Your task to perform on an android device: Clear the cart on amazon. Search for amazon basics triple a on amazon, select the first entry, and add it to the cart. Image 0: 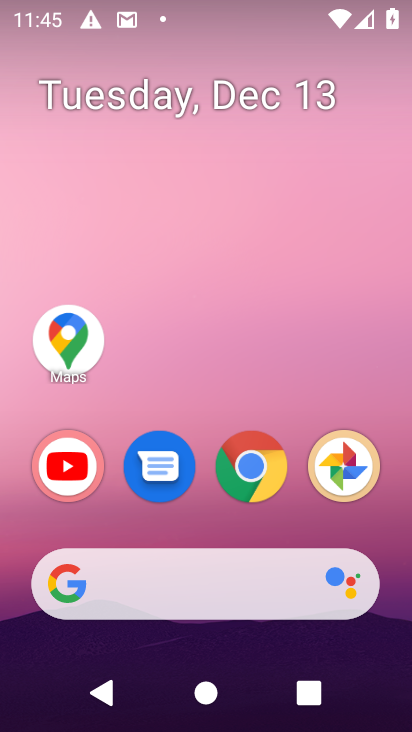
Step 0: click (190, 589)
Your task to perform on an android device: Clear the cart on amazon. Search for amazon basics triple a on amazon, select the first entry, and add it to the cart. Image 1: 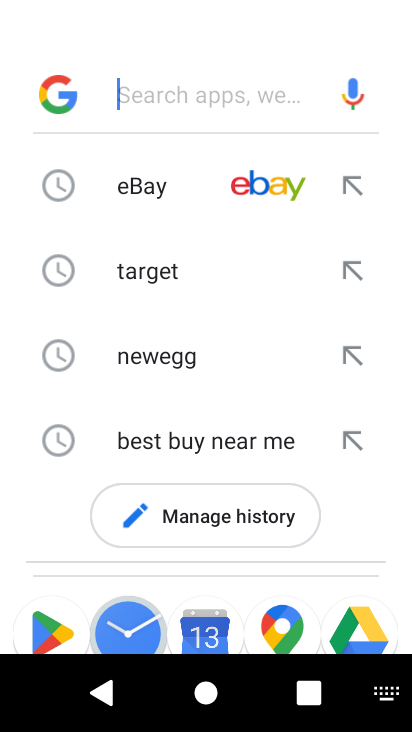
Step 1: type "amazon"
Your task to perform on an android device: Clear the cart on amazon. Search for amazon basics triple a on amazon, select the first entry, and add it to the cart. Image 2: 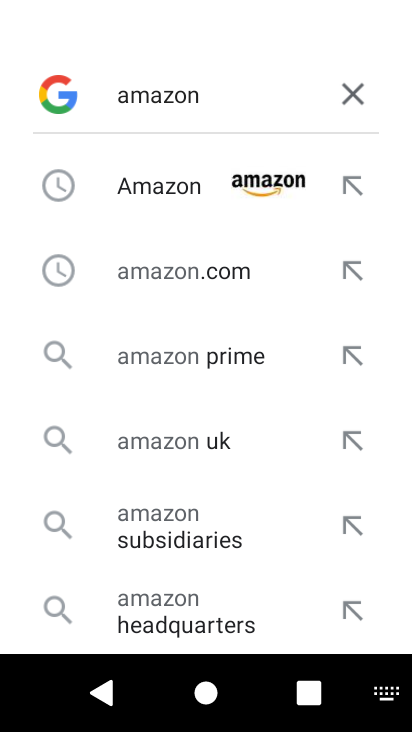
Step 2: click (181, 191)
Your task to perform on an android device: Clear the cart on amazon. Search for amazon basics triple a on amazon, select the first entry, and add it to the cart. Image 3: 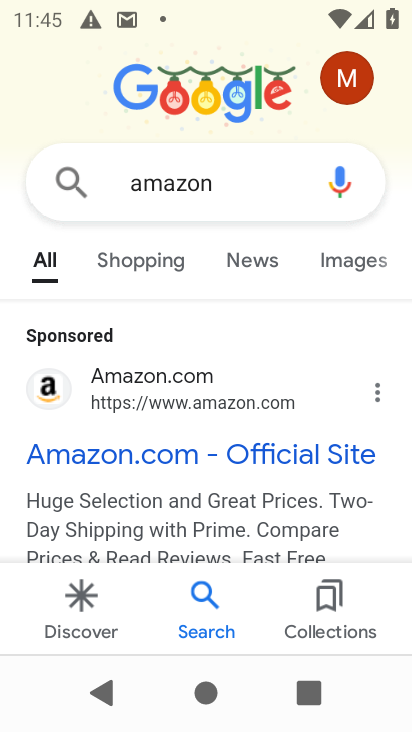
Step 3: click (162, 447)
Your task to perform on an android device: Clear the cart on amazon. Search for amazon basics triple a on amazon, select the first entry, and add it to the cart. Image 4: 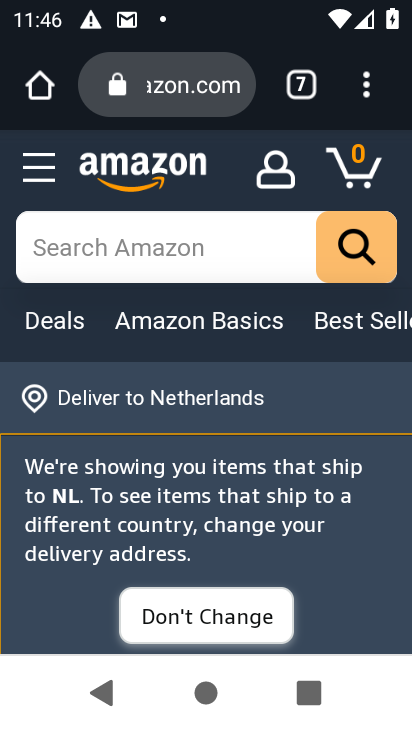
Step 4: click (182, 257)
Your task to perform on an android device: Clear the cart on amazon. Search for amazon basics triple a on amazon, select the first entry, and add it to the cart. Image 5: 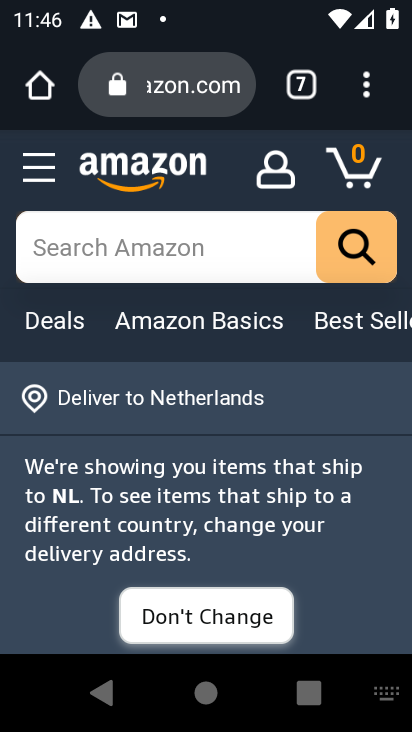
Step 5: type "basics triple a"
Your task to perform on an android device: Clear the cart on amazon. Search for amazon basics triple a on amazon, select the first entry, and add it to the cart. Image 6: 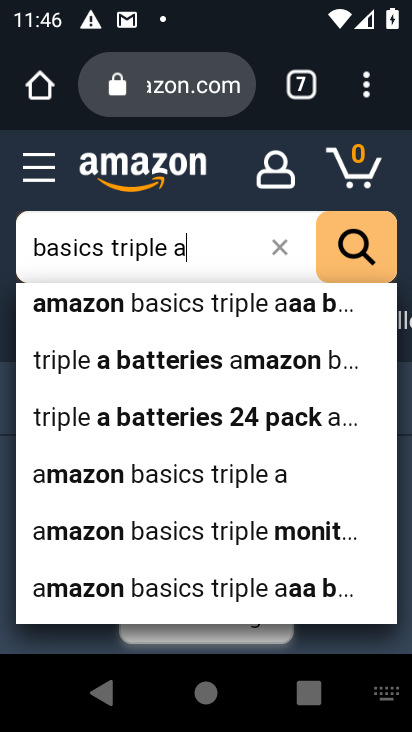
Step 6: click (349, 253)
Your task to perform on an android device: Clear the cart on amazon. Search for amazon basics triple a on amazon, select the first entry, and add it to the cart. Image 7: 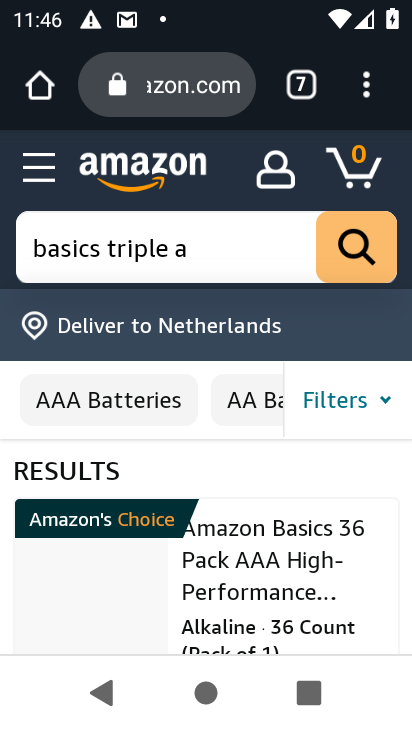
Step 7: click (220, 574)
Your task to perform on an android device: Clear the cart on amazon. Search for amazon basics triple a on amazon, select the first entry, and add it to the cart. Image 8: 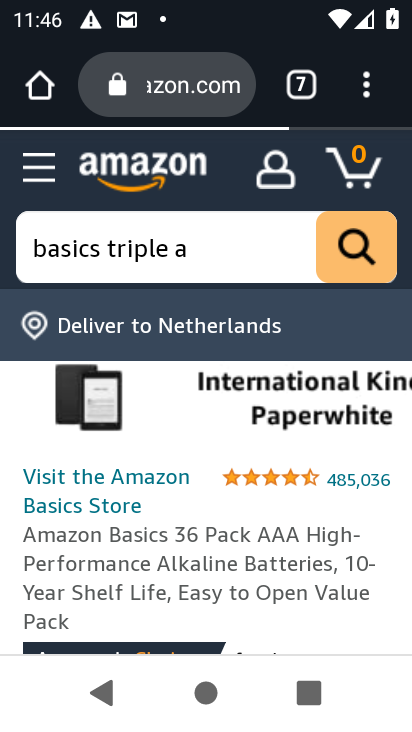
Step 8: drag from (286, 565) to (271, 355)
Your task to perform on an android device: Clear the cart on amazon. Search for amazon basics triple a on amazon, select the first entry, and add it to the cart. Image 9: 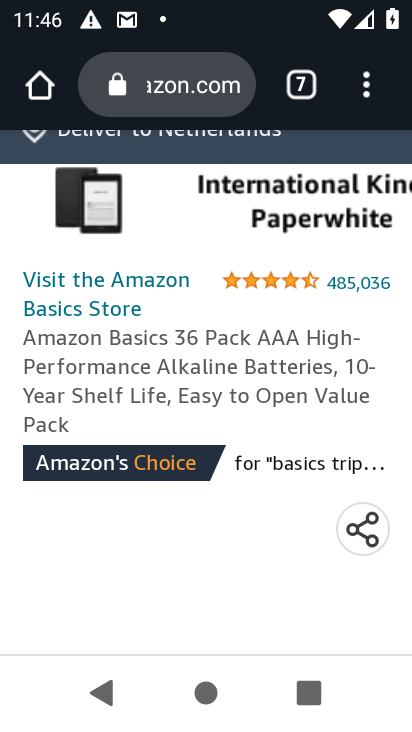
Step 9: drag from (218, 580) to (240, 362)
Your task to perform on an android device: Clear the cart on amazon. Search for amazon basics triple a on amazon, select the first entry, and add it to the cart. Image 10: 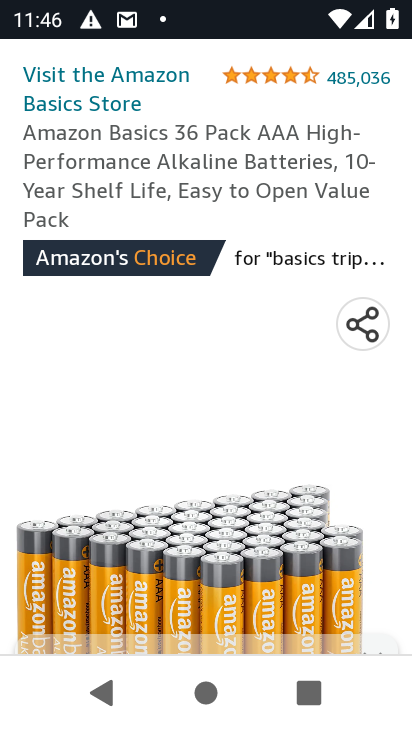
Step 10: drag from (224, 619) to (243, 435)
Your task to perform on an android device: Clear the cart on amazon. Search for amazon basics triple a on amazon, select the first entry, and add it to the cart. Image 11: 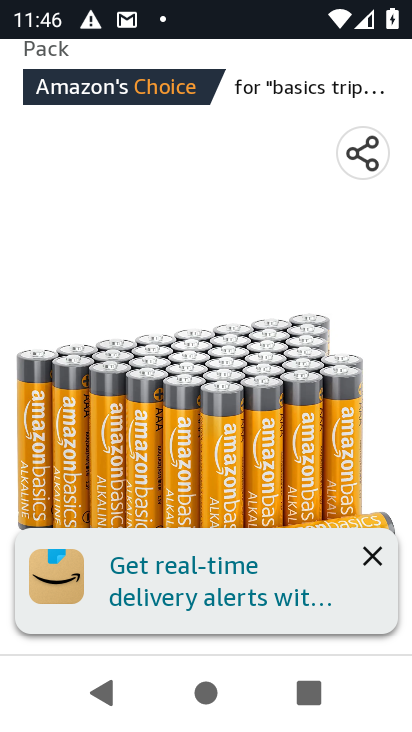
Step 11: drag from (256, 508) to (274, 383)
Your task to perform on an android device: Clear the cart on amazon. Search for amazon basics triple a on amazon, select the first entry, and add it to the cart. Image 12: 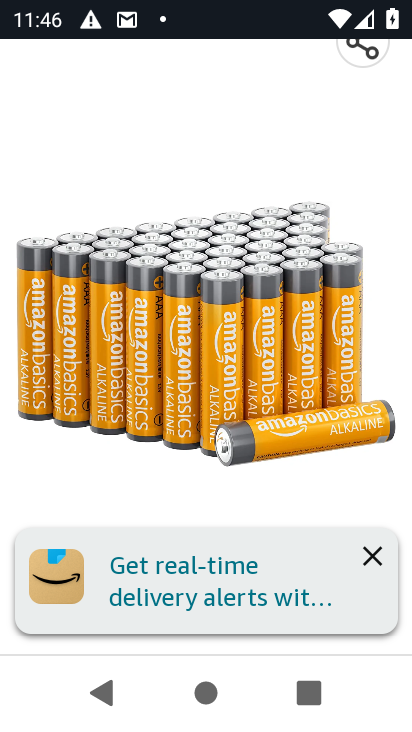
Step 12: drag from (253, 452) to (279, 335)
Your task to perform on an android device: Clear the cart on amazon. Search for amazon basics triple a on amazon, select the first entry, and add it to the cart. Image 13: 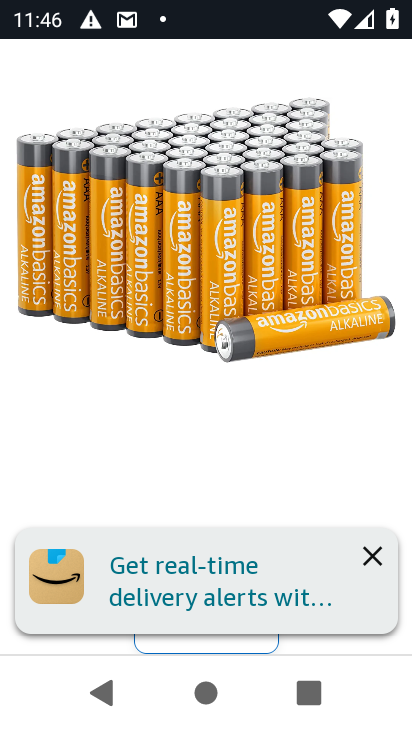
Step 13: click (358, 550)
Your task to perform on an android device: Clear the cart on amazon. Search for amazon basics triple a on amazon, select the first entry, and add it to the cart. Image 14: 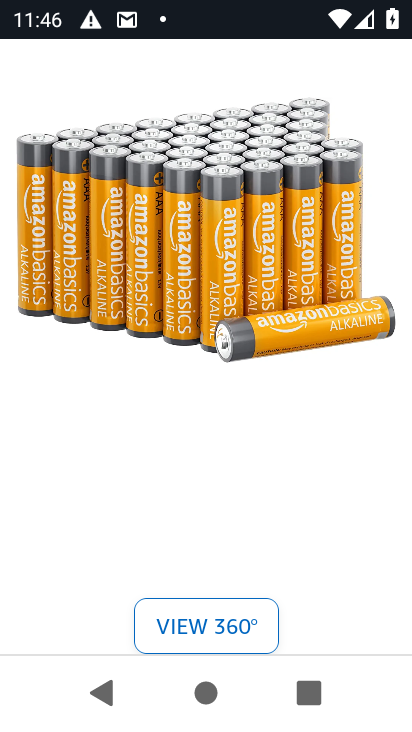
Step 14: drag from (256, 536) to (247, 328)
Your task to perform on an android device: Clear the cart on amazon. Search for amazon basics triple a on amazon, select the first entry, and add it to the cart. Image 15: 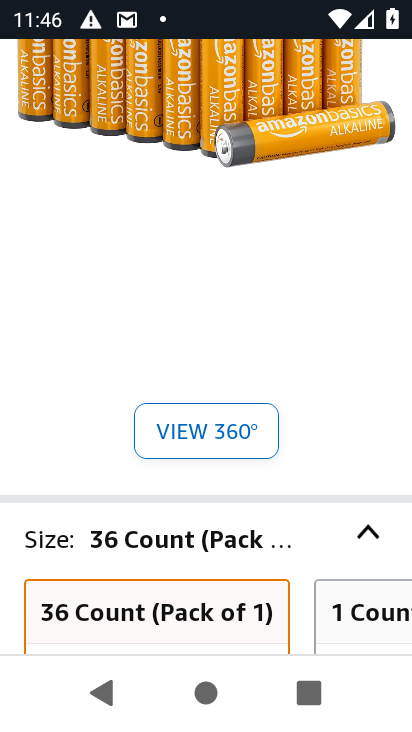
Step 15: drag from (247, 518) to (247, 368)
Your task to perform on an android device: Clear the cart on amazon. Search for amazon basics triple a on amazon, select the first entry, and add it to the cart. Image 16: 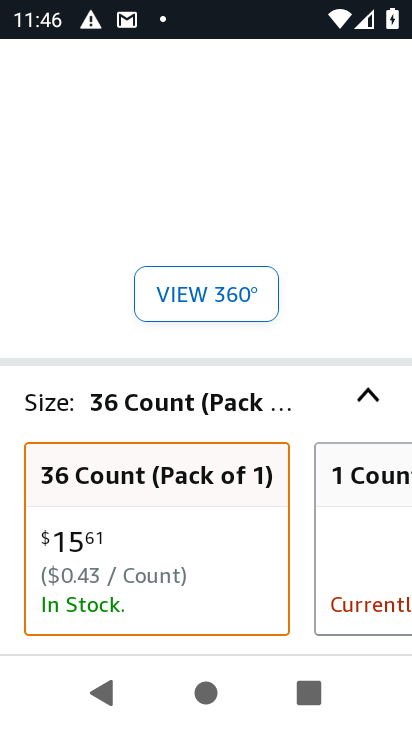
Step 16: drag from (305, 562) to (308, 369)
Your task to perform on an android device: Clear the cart on amazon. Search for amazon basics triple a on amazon, select the first entry, and add it to the cart. Image 17: 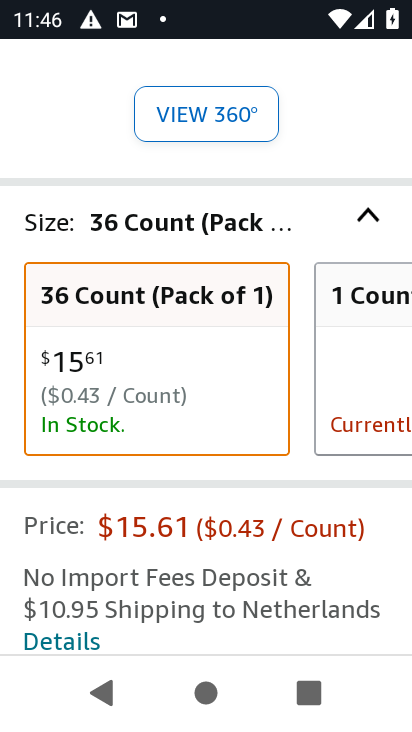
Step 17: drag from (293, 505) to (293, 173)
Your task to perform on an android device: Clear the cart on amazon. Search for amazon basics triple a on amazon, select the first entry, and add it to the cart. Image 18: 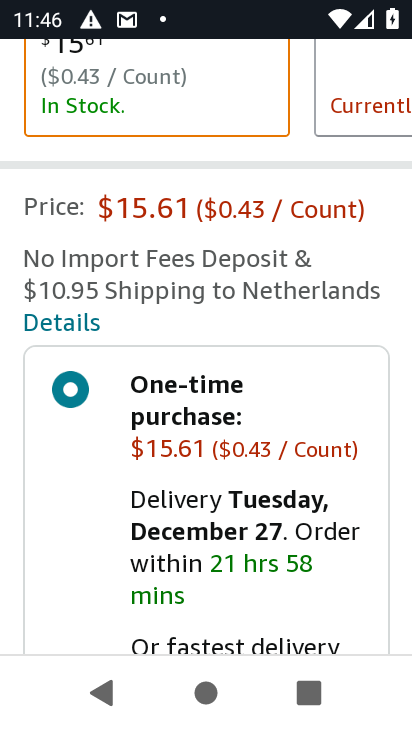
Step 18: drag from (370, 419) to (370, 169)
Your task to perform on an android device: Clear the cart on amazon. Search for amazon basics triple a on amazon, select the first entry, and add it to the cart. Image 19: 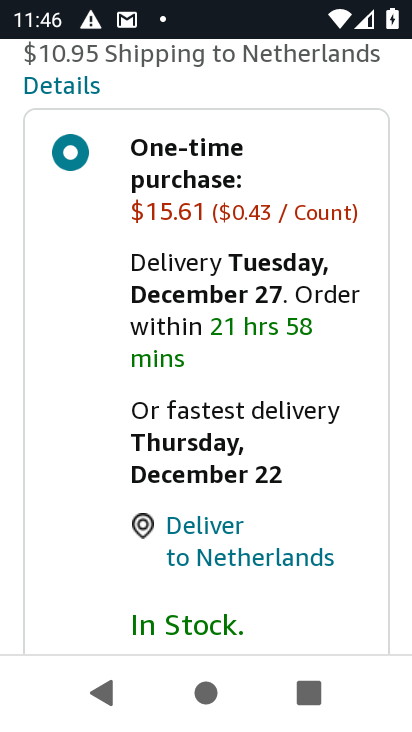
Step 19: drag from (332, 621) to (330, 387)
Your task to perform on an android device: Clear the cart on amazon. Search for amazon basics triple a on amazon, select the first entry, and add it to the cart. Image 20: 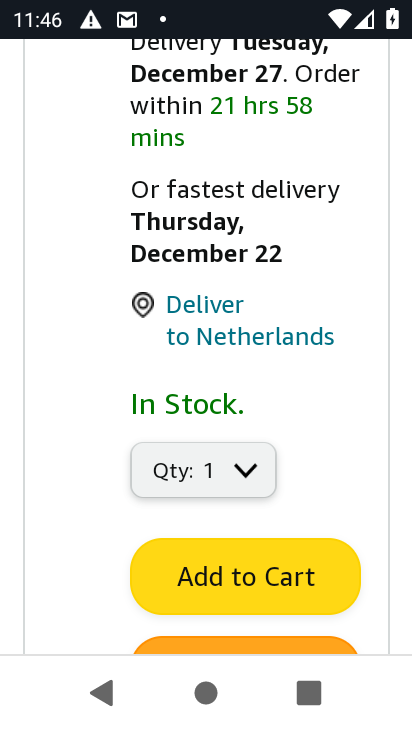
Step 20: click (226, 582)
Your task to perform on an android device: Clear the cart on amazon. Search for amazon basics triple a on amazon, select the first entry, and add it to the cart. Image 21: 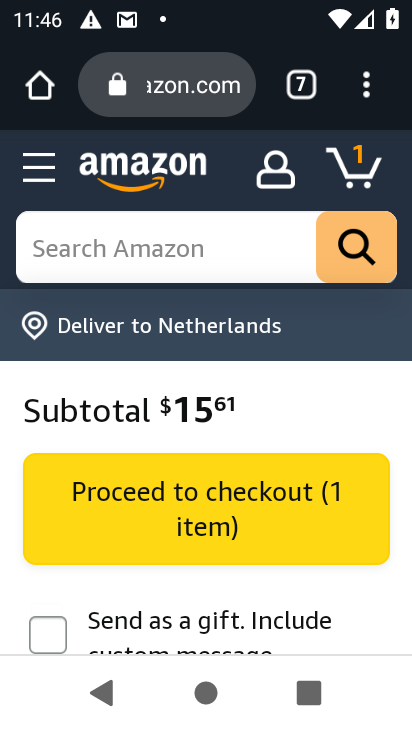
Step 21: task complete